Your task to perform on an android device: add a contact Image 0: 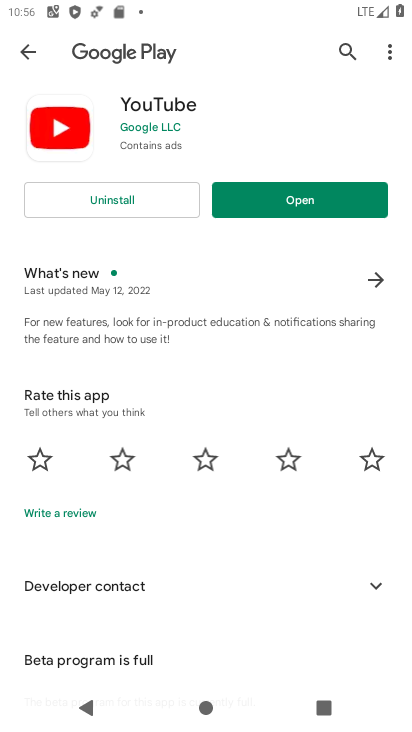
Step 0: press home button
Your task to perform on an android device: add a contact Image 1: 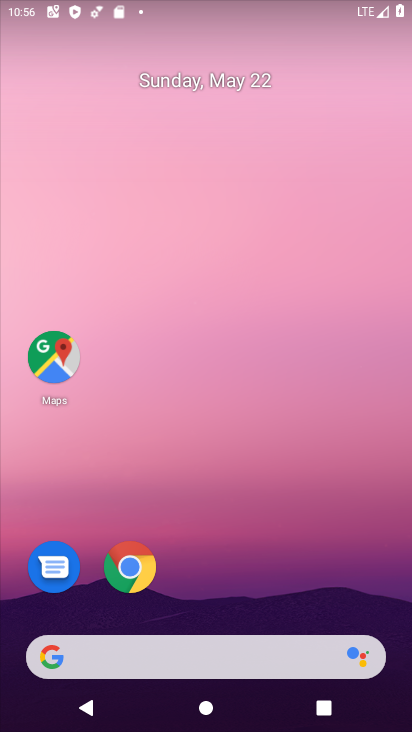
Step 1: drag from (384, 618) to (340, 58)
Your task to perform on an android device: add a contact Image 2: 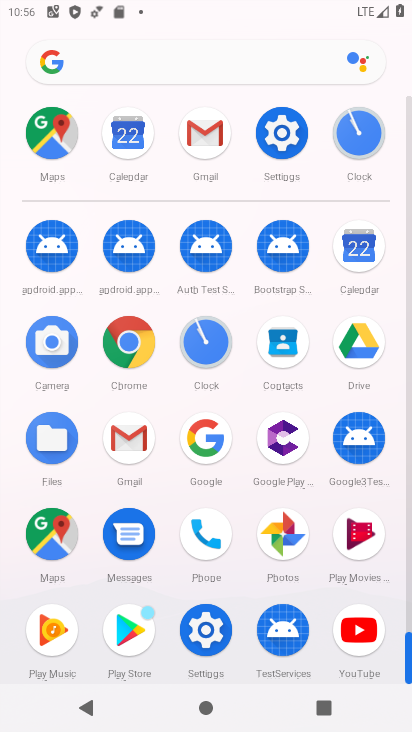
Step 2: click (279, 346)
Your task to perform on an android device: add a contact Image 3: 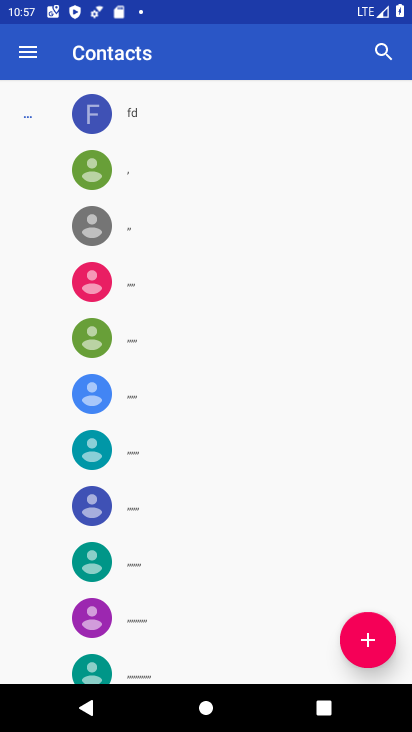
Step 3: click (367, 633)
Your task to perform on an android device: add a contact Image 4: 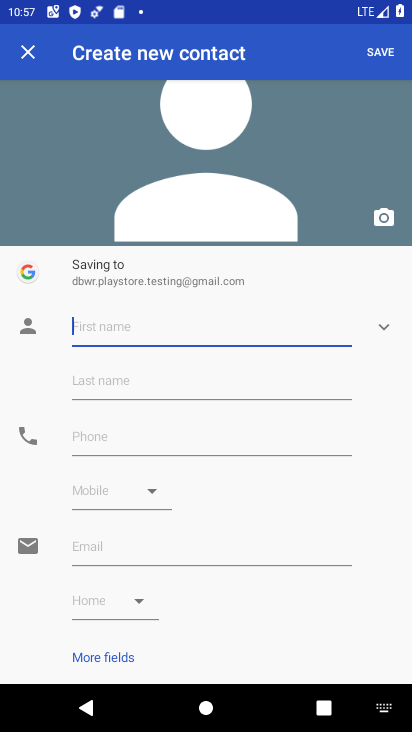
Step 4: type ""
Your task to perform on an android device: add a contact Image 5: 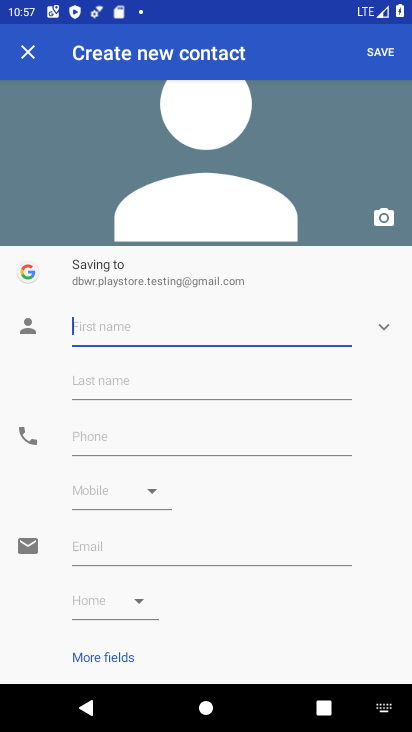
Step 5: type "ouiitrtewfg"
Your task to perform on an android device: add a contact Image 6: 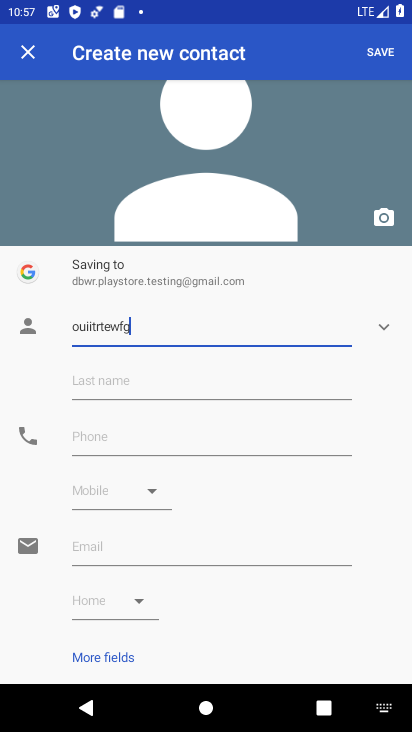
Step 6: click (112, 438)
Your task to perform on an android device: add a contact Image 7: 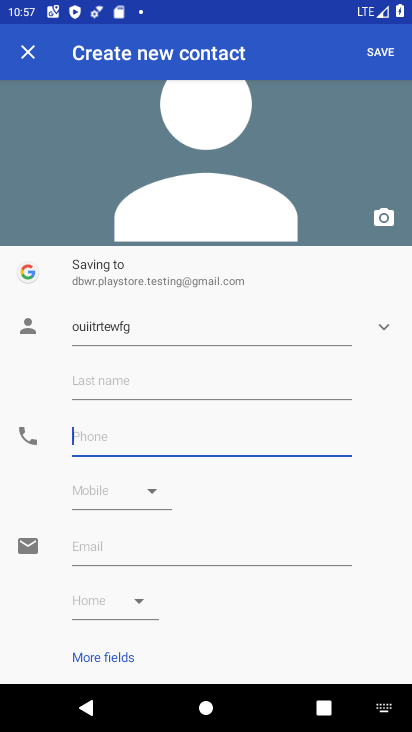
Step 7: type "09786543"
Your task to perform on an android device: add a contact Image 8: 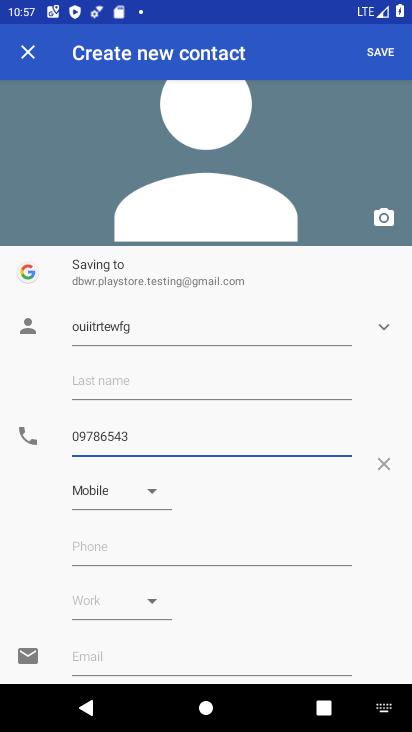
Step 8: click (159, 488)
Your task to perform on an android device: add a contact Image 9: 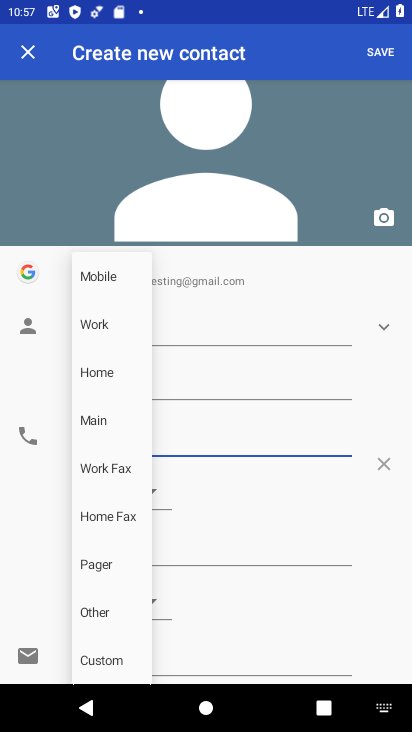
Step 9: click (103, 370)
Your task to perform on an android device: add a contact Image 10: 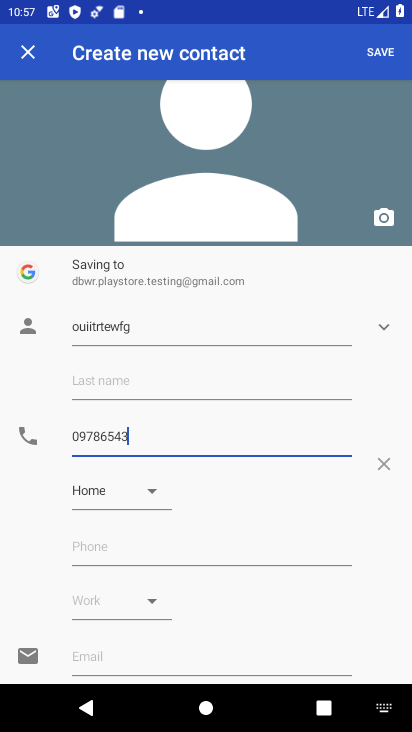
Step 10: click (377, 47)
Your task to perform on an android device: add a contact Image 11: 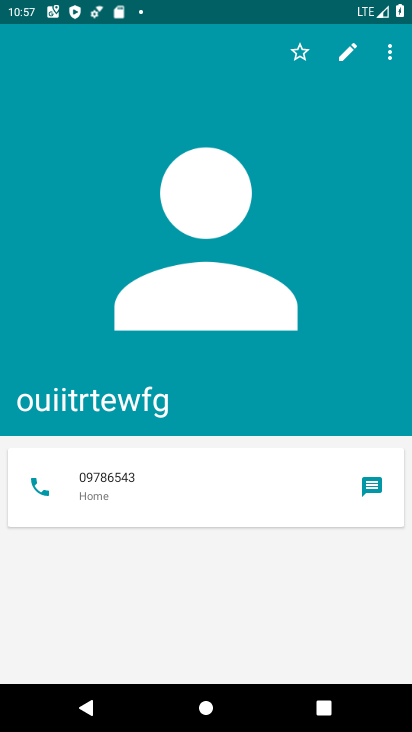
Step 11: task complete